Your task to perform on an android device: turn off picture-in-picture Image 0: 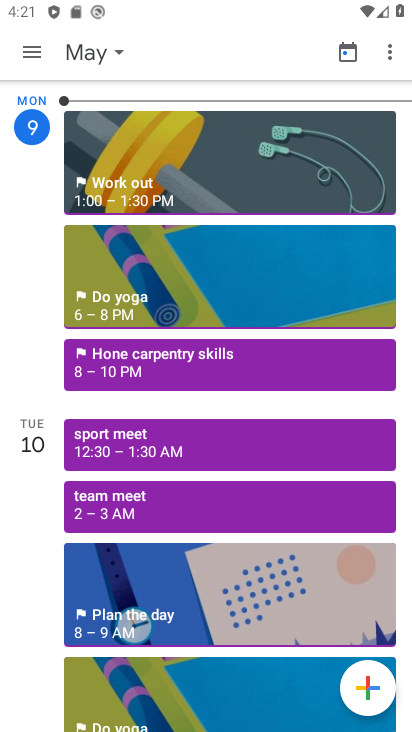
Step 0: press home button
Your task to perform on an android device: turn off picture-in-picture Image 1: 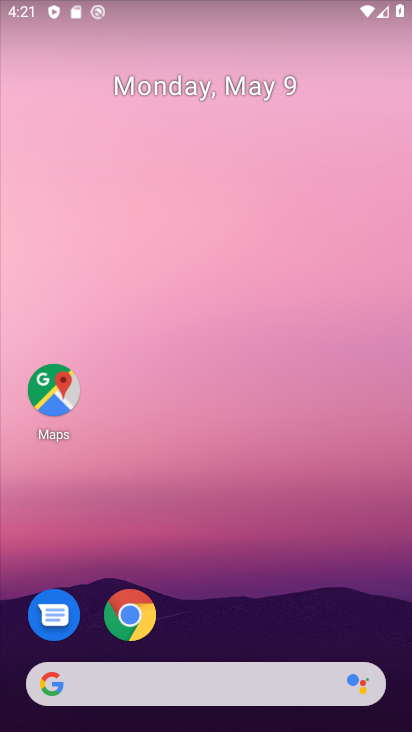
Step 1: click (117, 615)
Your task to perform on an android device: turn off picture-in-picture Image 2: 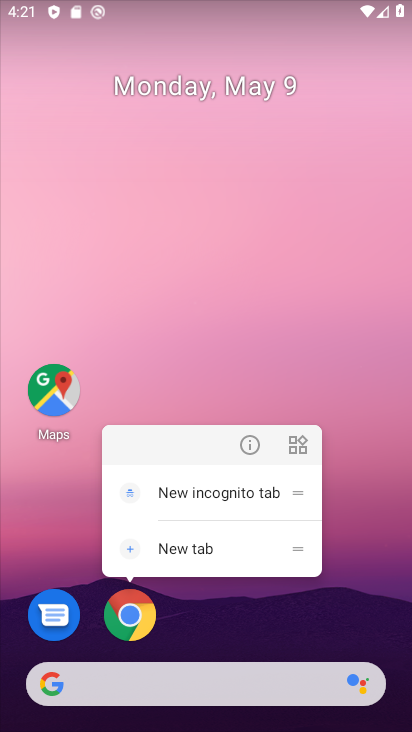
Step 2: click (256, 441)
Your task to perform on an android device: turn off picture-in-picture Image 3: 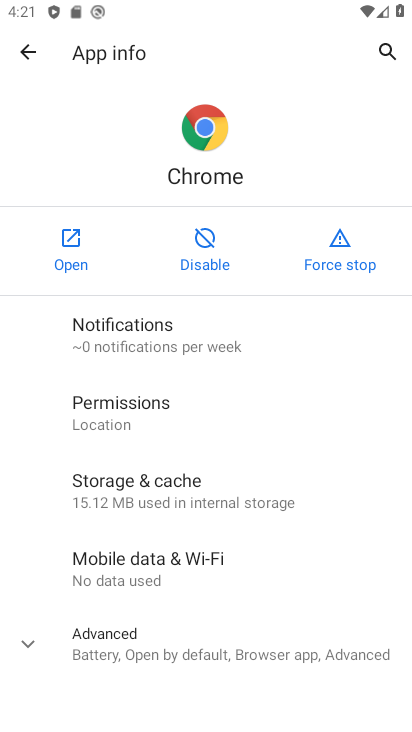
Step 3: click (81, 642)
Your task to perform on an android device: turn off picture-in-picture Image 4: 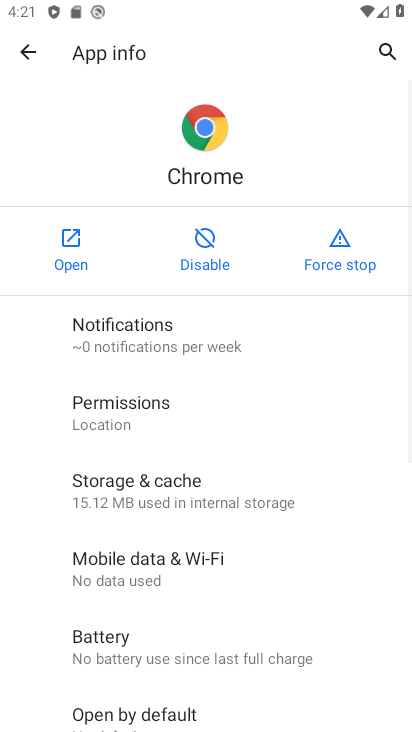
Step 4: drag from (156, 702) to (232, 266)
Your task to perform on an android device: turn off picture-in-picture Image 5: 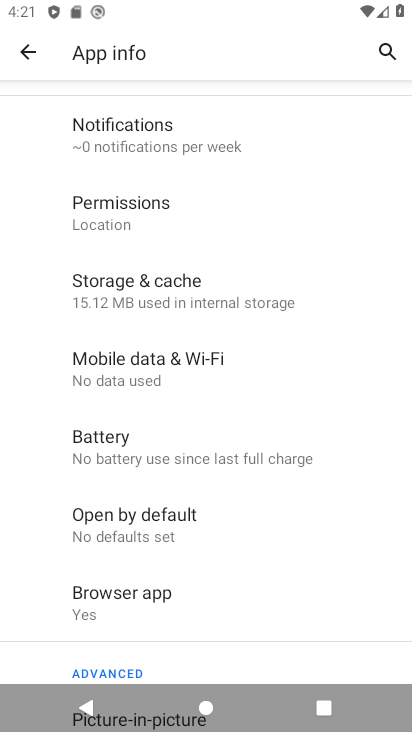
Step 5: drag from (138, 640) to (240, 209)
Your task to perform on an android device: turn off picture-in-picture Image 6: 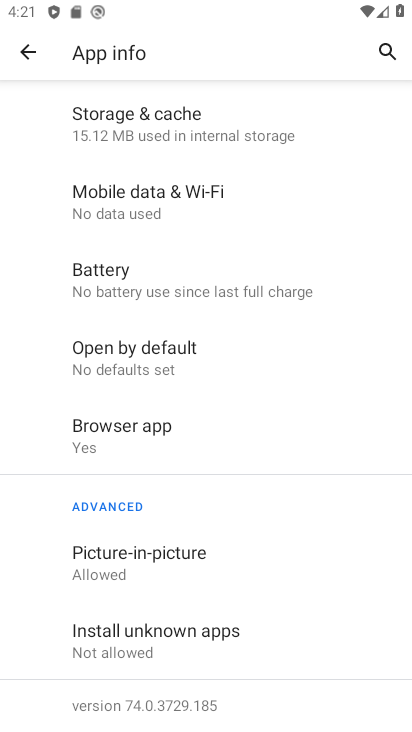
Step 6: click (151, 551)
Your task to perform on an android device: turn off picture-in-picture Image 7: 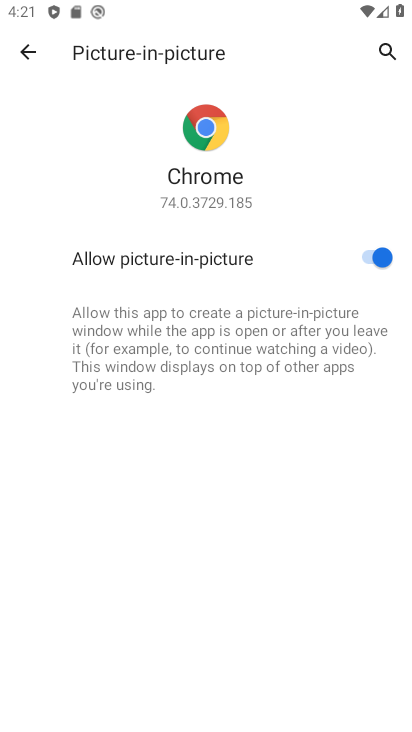
Step 7: click (363, 260)
Your task to perform on an android device: turn off picture-in-picture Image 8: 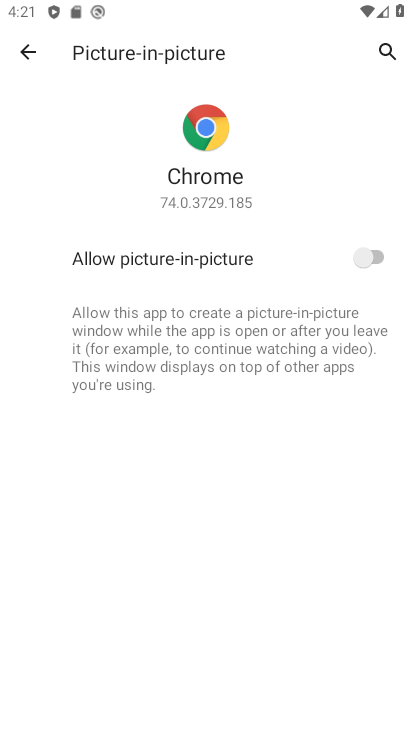
Step 8: task complete